Your task to perform on an android device: Is it going to rain this weekend? Image 0: 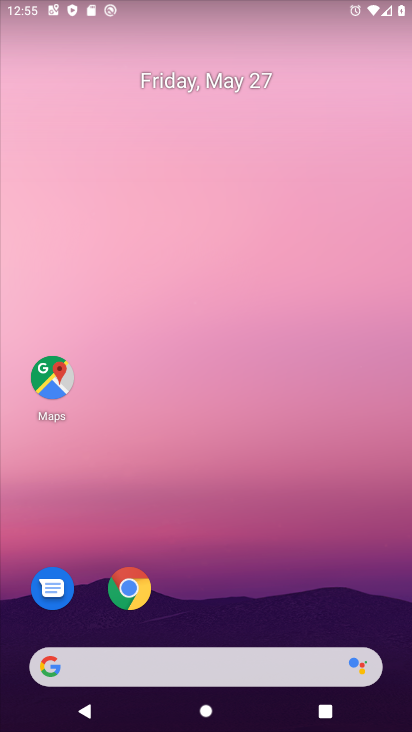
Step 0: drag from (216, 599) to (259, 24)
Your task to perform on an android device: Is it going to rain this weekend? Image 1: 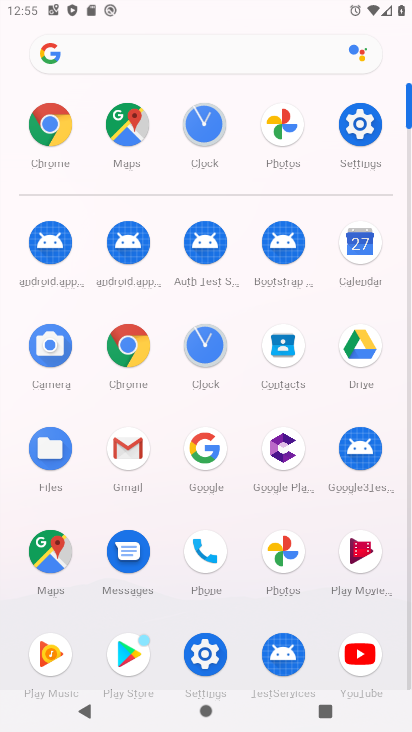
Step 1: click (356, 241)
Your task to perform on an android device: Is it going to rain this weekend? Image 2: 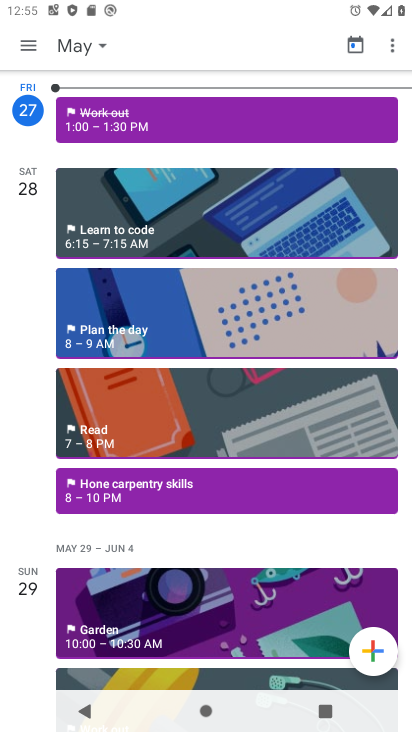
Step 2: press home button
Your task to perform on an android device: Is it going to rain this weekend? Image 3: 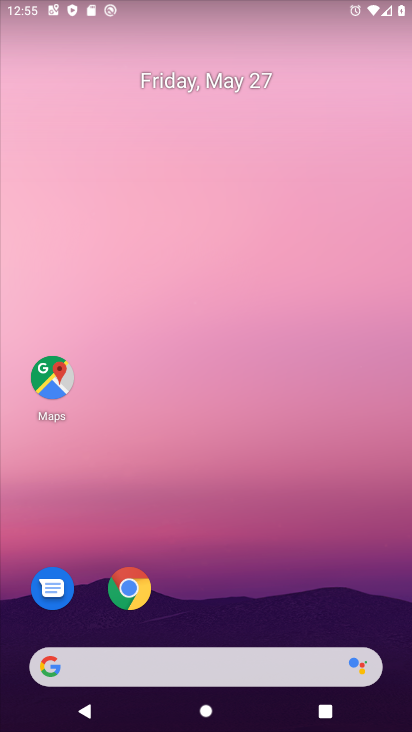
Step 3: drag from (156, 248) to (406, 243)
Your task to perform on an android device: Is it going to rain this weekend? Image 4: 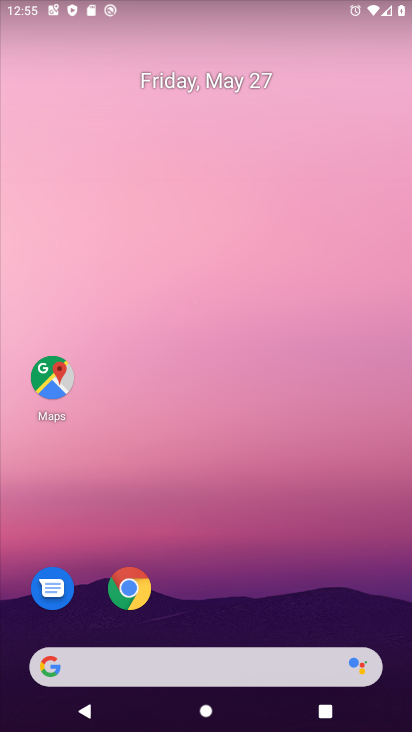
Step 4: drag from (9, 259) to (407, 258)
Your task to perform on an android device: Is it going to rain this weekend? Image 5: 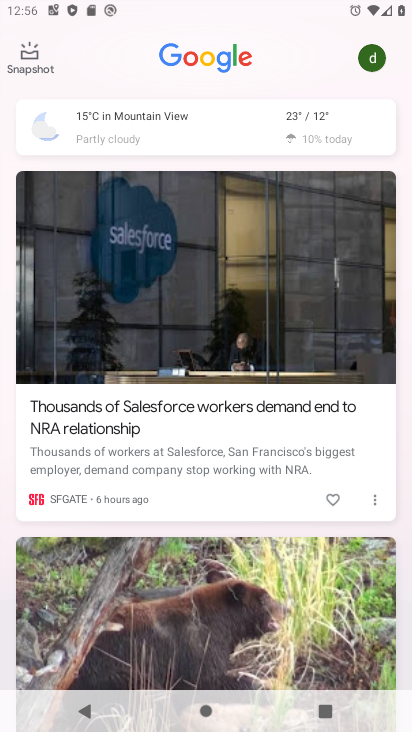
Step 5: click (308, 113)
Your task to perform on an android device: Is it going to rain this weekend? Image 6: 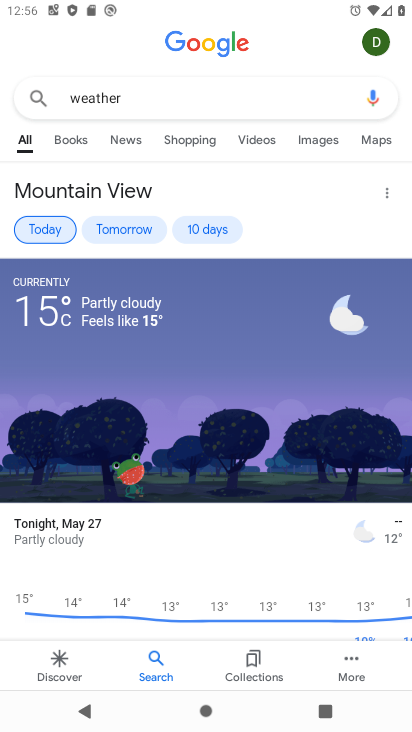
Step 6: drag from (238, 524) to (237, 108)
Your task to perform on an android device: Is it going to rain this weekend? Image 7: 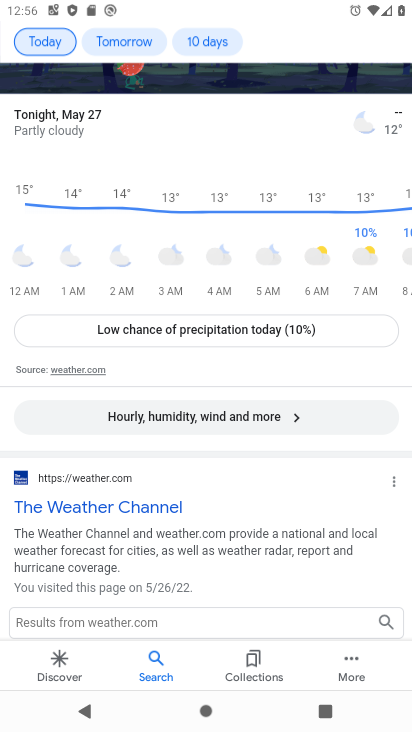
Step 7: drag from (323, 261) to (64, 265)
Your task to perform on an android device: Is it going to rain this weekend? Image 8: 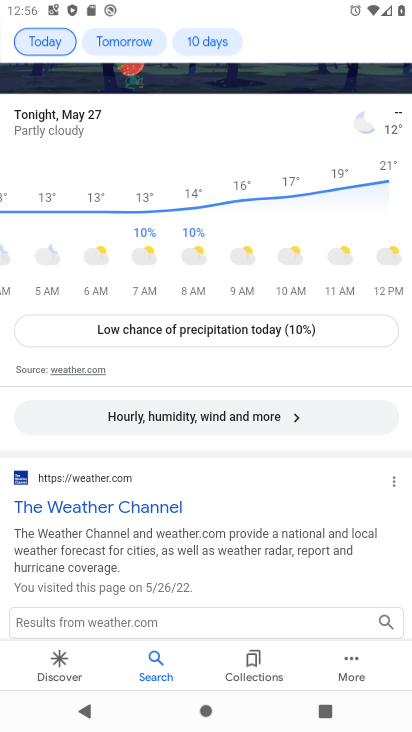
Step 8: click (208, 36)
Your task to perform on an android device: Is it going to rain this weekend? Image 9: 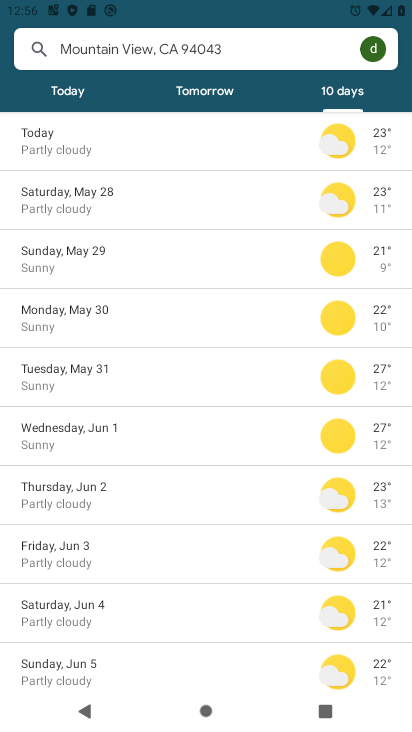
Step 9: task complete